Your task to perform on an android device: change the clock display to show seconds Image 0: 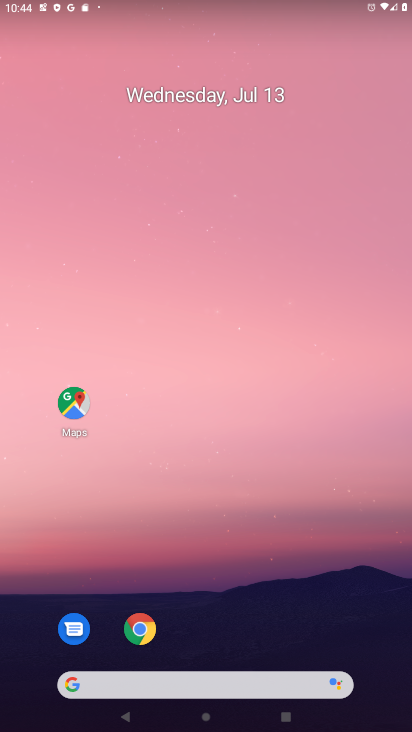
Step 0: drag from (224, 595) to (183, 15)
Your task to perform on an android device: change the clock display to show seconds Image 1: 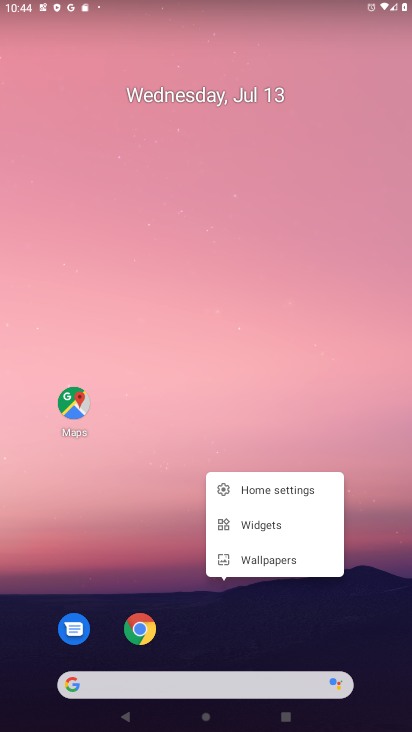
Step 1: click (166, 319)
Your task to perform on an android device: change the clock display to show seconds Image 2: 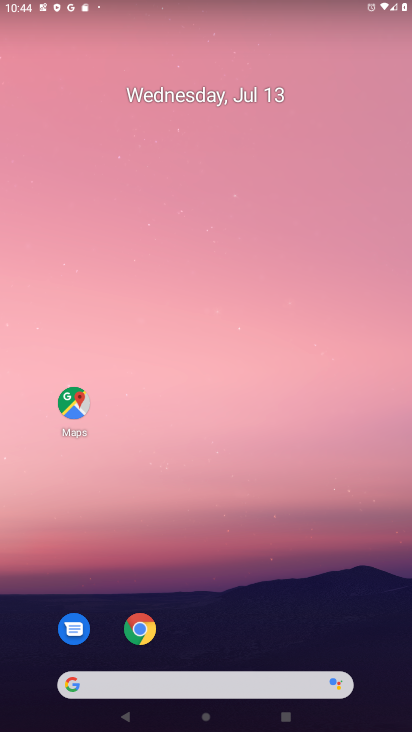
Step 2: drag from (250, 632) to (221, 243)
Your task to perform on an android device: change the clock display to show seconds Image 3: 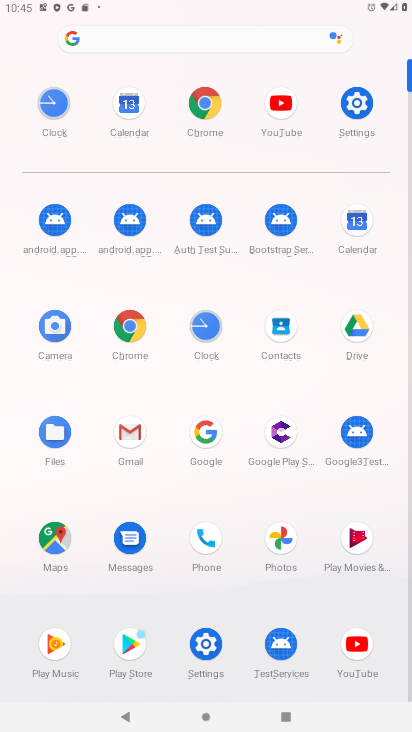
Step 3: click (61, 101)
Your task to perform on an android device: change the clock display to show seconds Image 4: 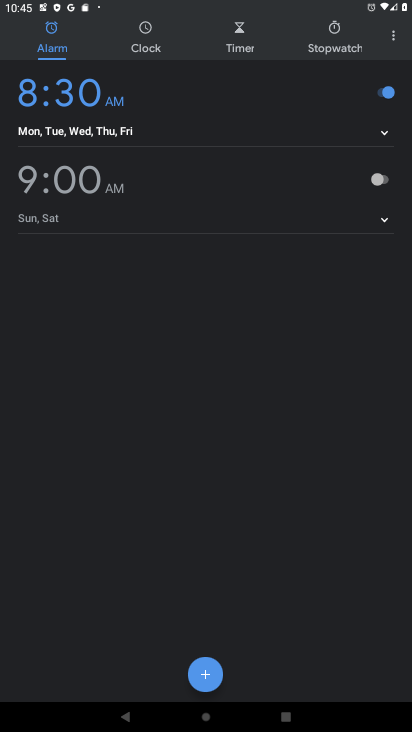
Step 4: click (387, 39)
Your task to perform on an android device: change the clock display to show seconds Image 5: 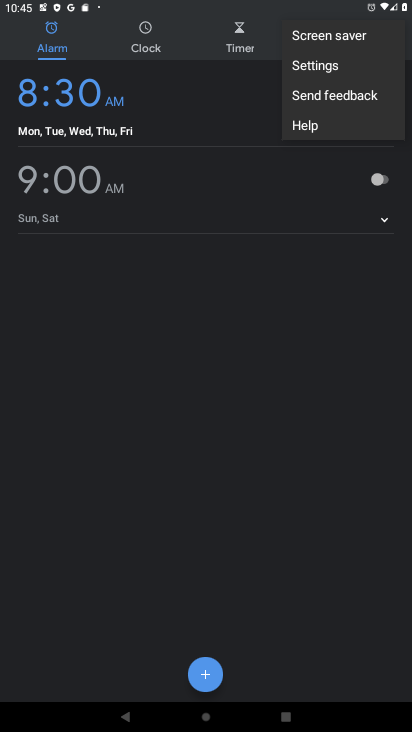
Step 5: click (373, 69)
Your task to perform on an android device: change the clock display to show seconds Image 6: 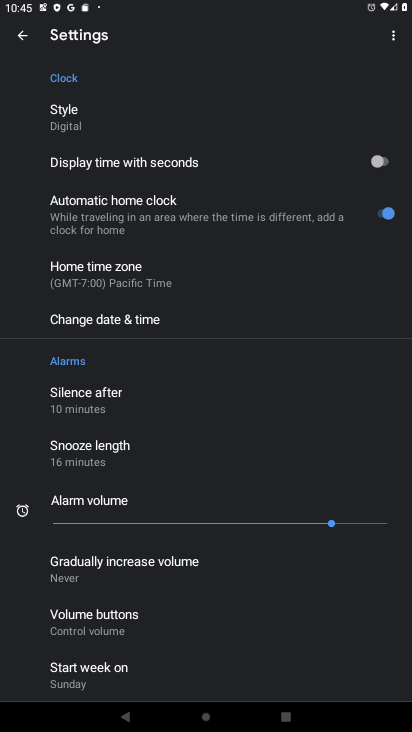
Step 6: click (383, 168)
Your task to perform on an android device: change the clock display to show seconds Image 7: 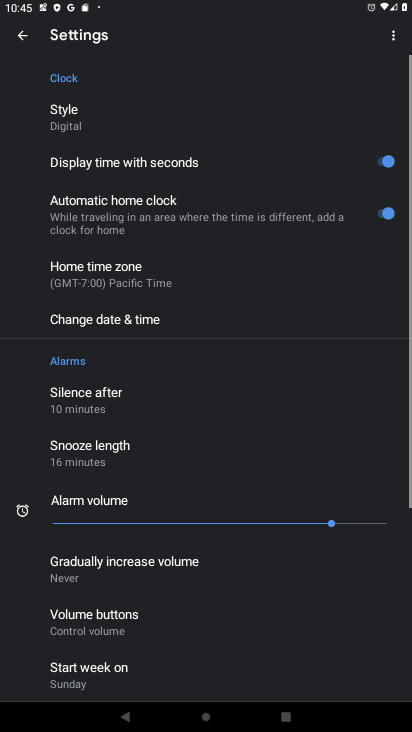
Step 7: task complete